Your task to perform on an android device: Open calendar and show me the first week of next month Image 0: 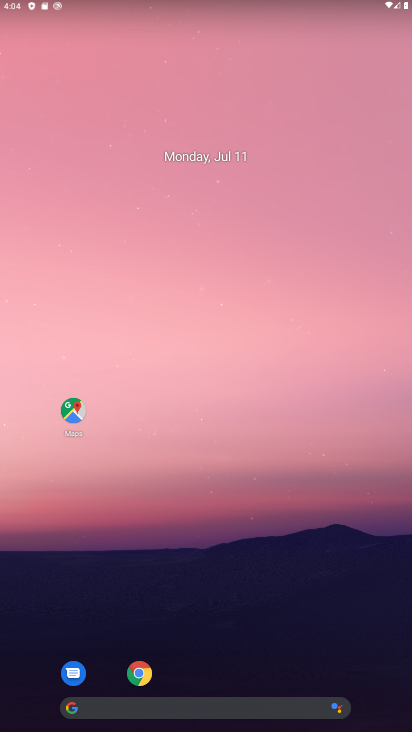
Step 0: drag from (246, 665) to (260, 128)
Your task to perform on an android device: Open calendar and show me the first week of next month Image 1: 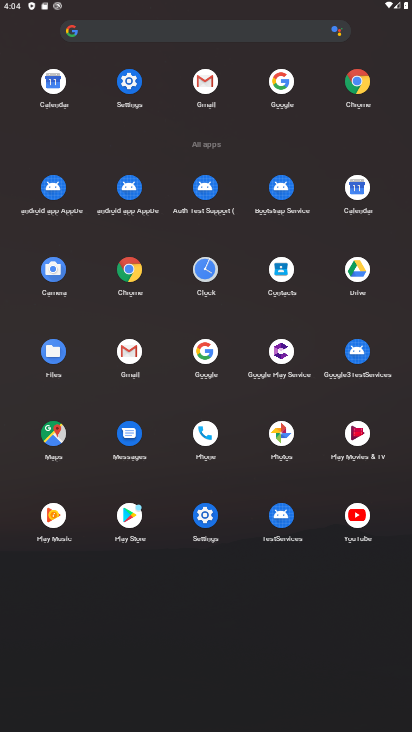
Step 1: click (355, 191)
Your task to perform on an android device: Open calendar and show me the first week of next month Image 2: 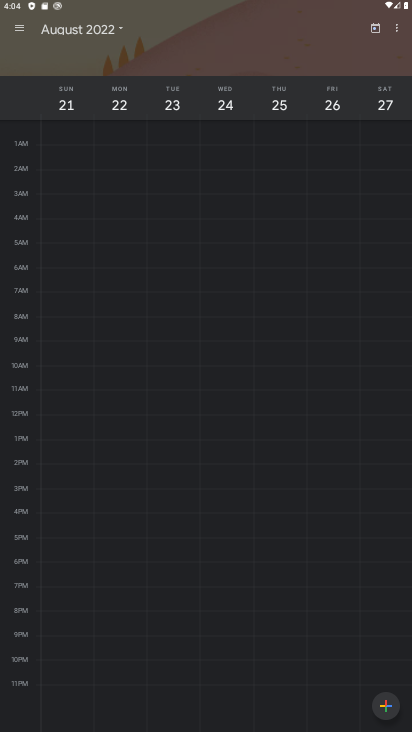
Step 2: click (376, 33)
Your task to perform on an android device: Open calendar and show me the first week of next month Image 3: 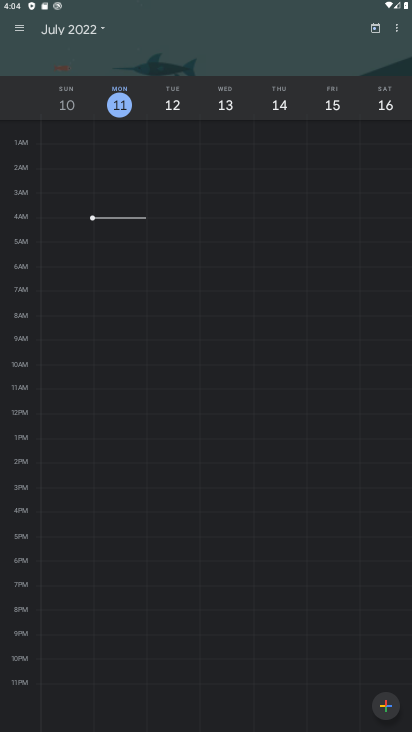
Step 3: drag from (373, 294) to (16, 395)
Your task to perform on an android device: Open calendar and show me the first week of next month Image 4: 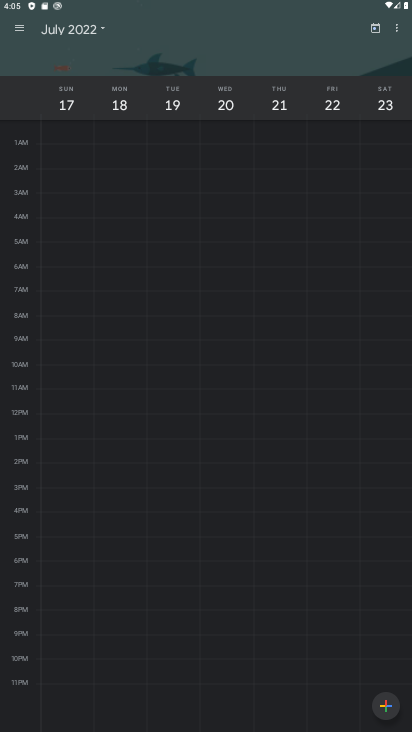
Step 4: drag from (358, 251) to (1, 157)
Your task to perform on an android device: Open calendar and show me the first week of next month Image 5: 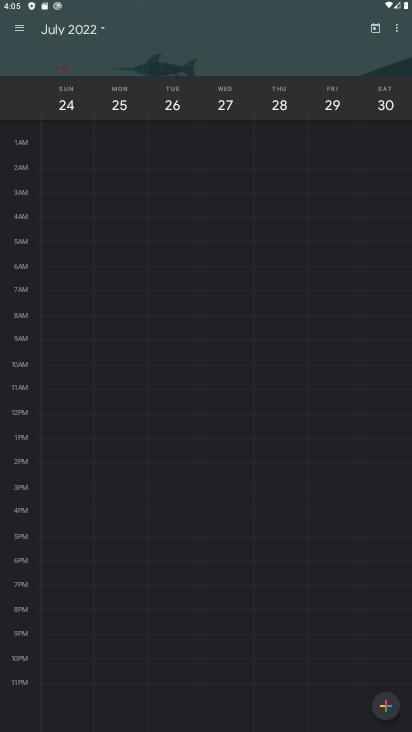
Step 5: click (100, 29)
Your task to perform on an android device: Open calendar and show me the first week of next month Image 6: 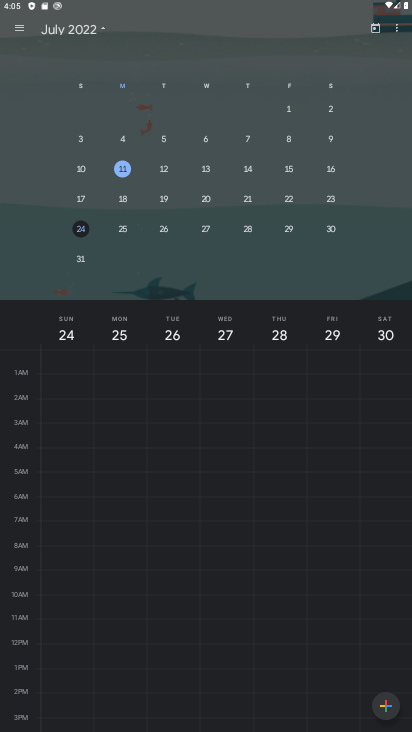
Step 6: drag from (343, 188) to (6, 227)
Your task to perform on an android device: Open calendar and show me the first week of next month Image 7: 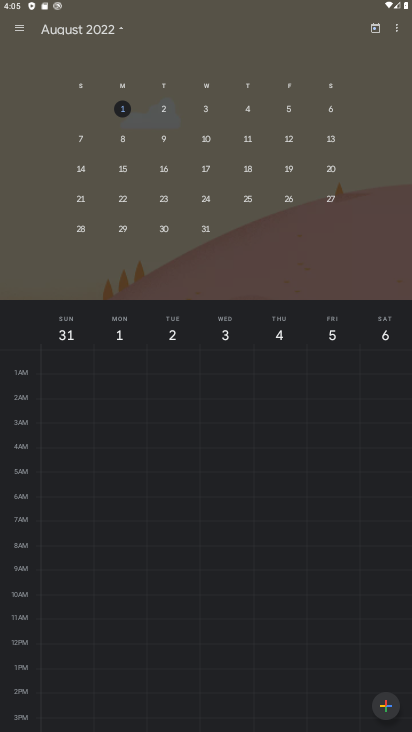
Step 7: click (122, 108)
Your task to perform on an android device: Open calendar and show me the first week of next month Image 8: 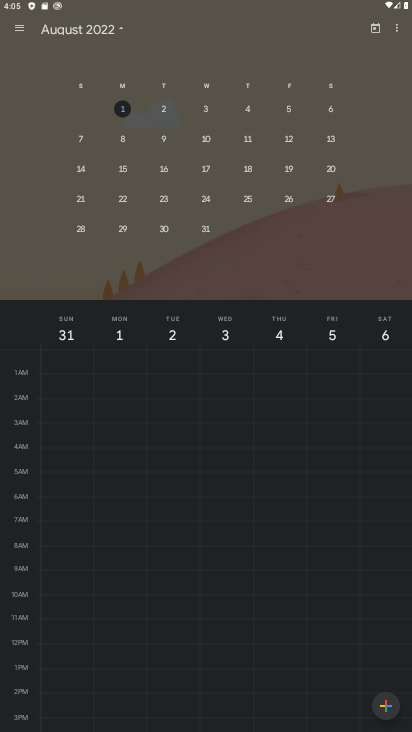
Step 8: click (13, 27)
Your task to perform on an android device: Open calendar and show me the first week of next month Image 9: 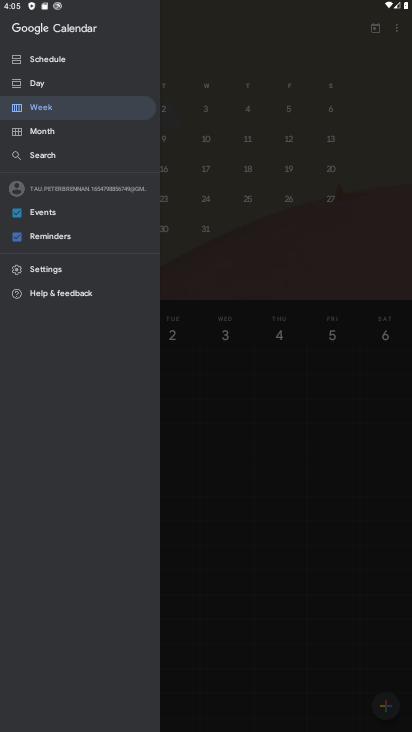
Step 9: click (33, 115)
Your task to perform on an android device: Open calendar and show me the first week of next month Image 10: 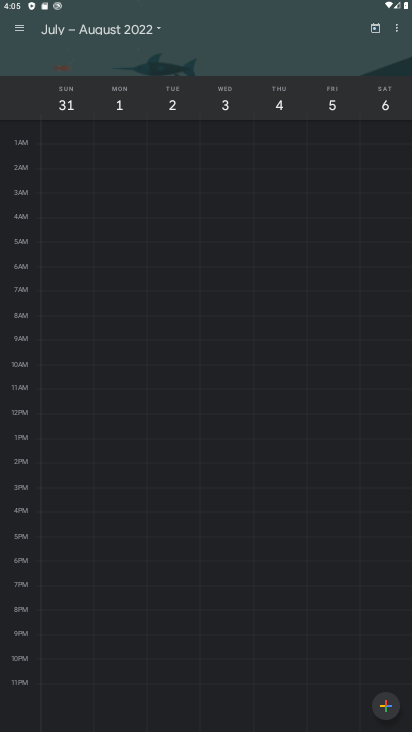
Step 10: task complete